Your task to perform on an android device: Open the phone app and click the voicemail tab. Image 0: 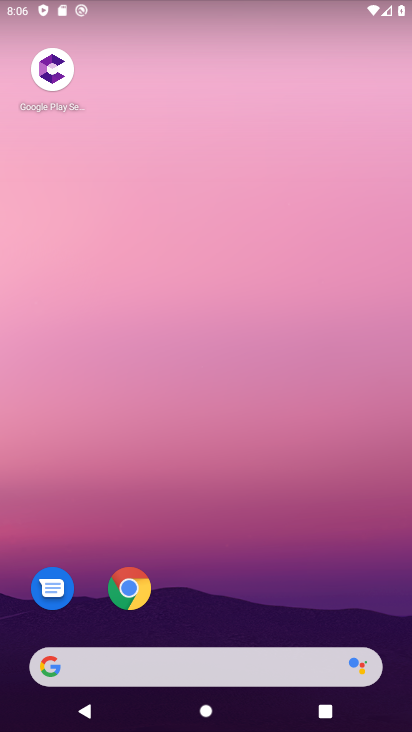
Step 0: press home button
Your task to perform on an android device: Open the phone app and click the voicemail tab. Image 1: 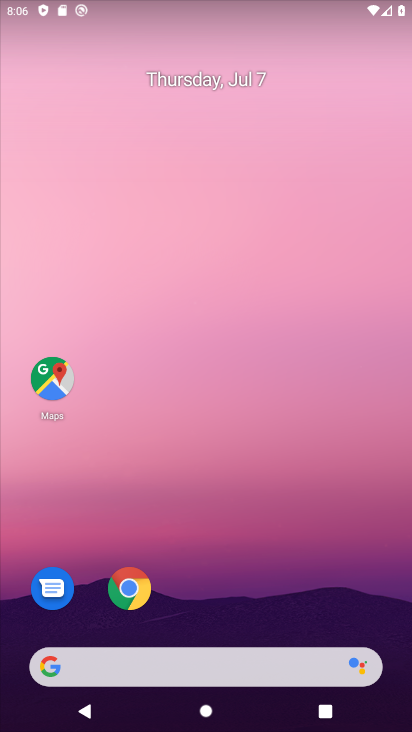
Step 1: drag from (198, 663) to (355, 74)
Your task to perform on an android device: Open the phone app and click the voicemail tab. Image 2: 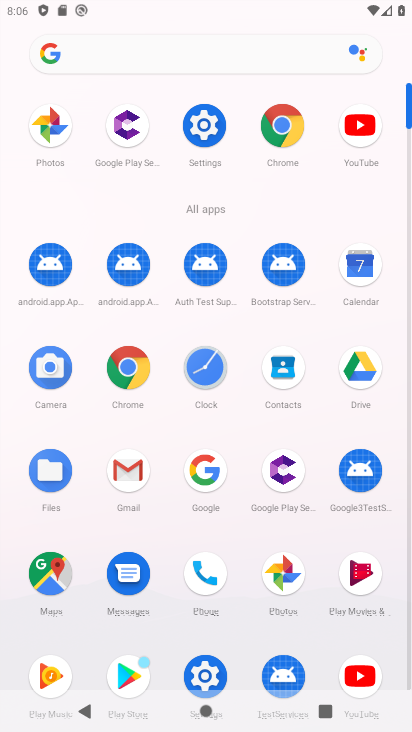
Step 2: click (203, 571)
Your task to perform on an android device: Open the phone app and click the voicemail tab. Image 3: 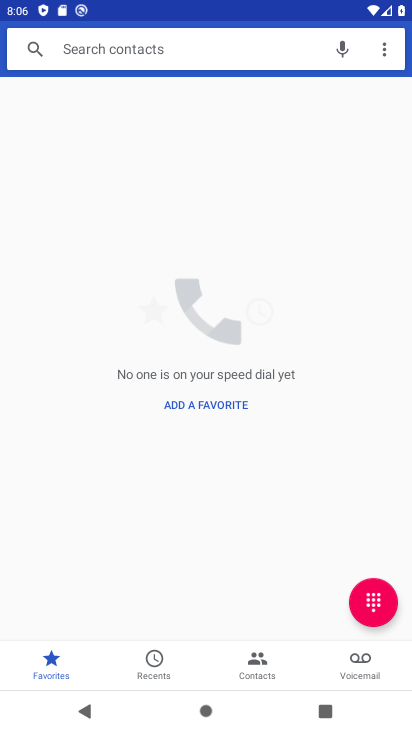
Step 3: click (346, 669)
Your task to perform on an android device: Open the phone app and click the voicemail tab. Image 4: 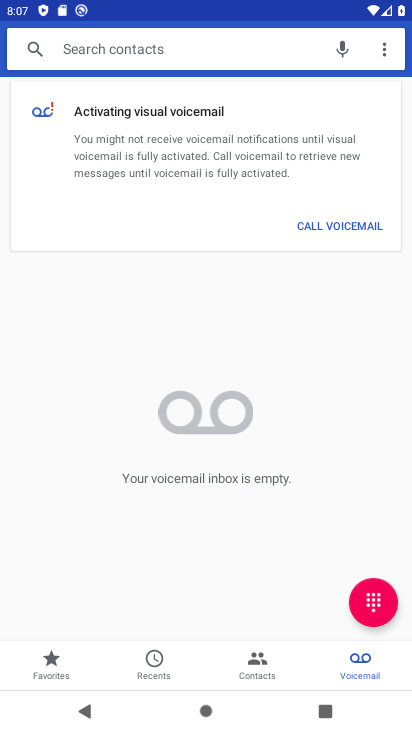
Step 4: task complete